Your task to perform on an android device: Go to Google maps Image 0: 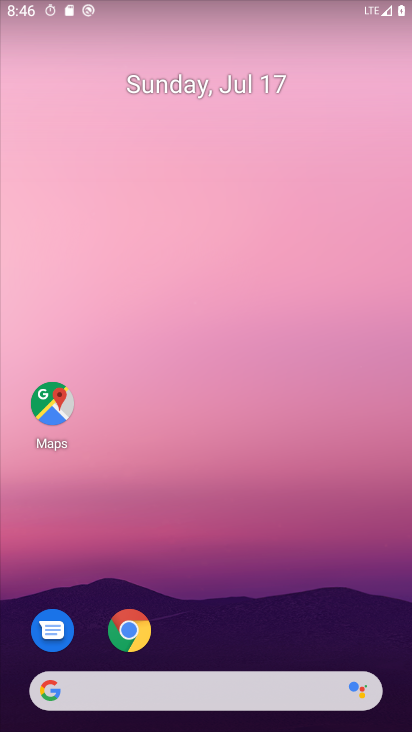
Step 0: click (53, 397)
Your task to perform on an android device: Go to Google maps Image 1: 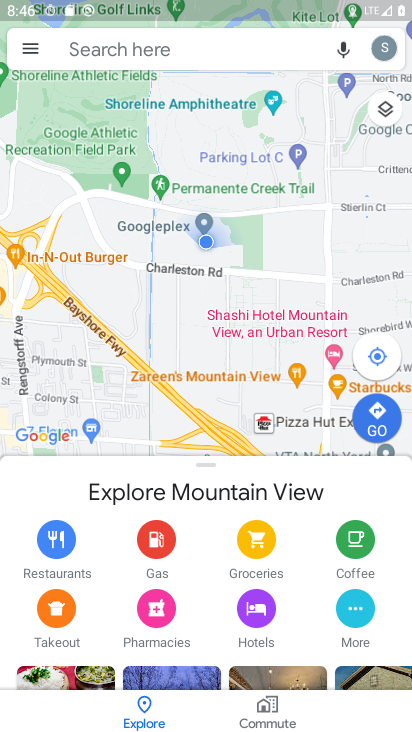
Step 1: task complete